Your task to perform on an android device: Open calendar and show me the fourth week of next month Image 0: 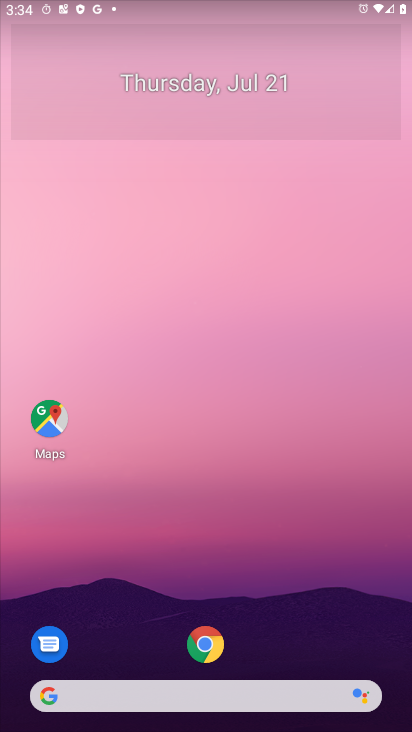
Step 0: press home button
Your task to perform on an android device: Open calendar and show me the fourth week of next month Image 1: 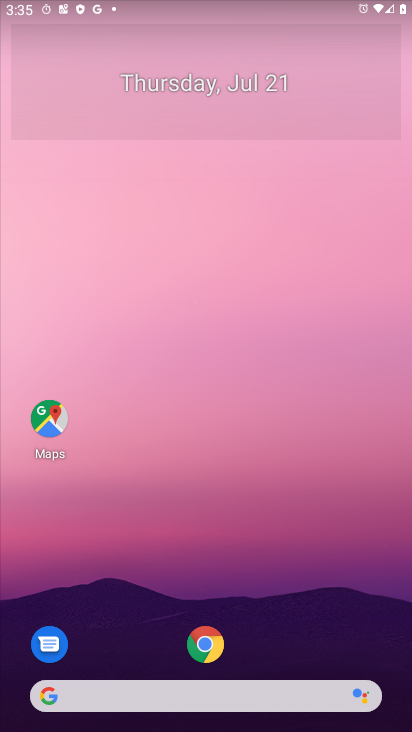
Step 1: press home button
Your task to perform on an android device: Open calendar and show me the fourth week of next month Image 2: 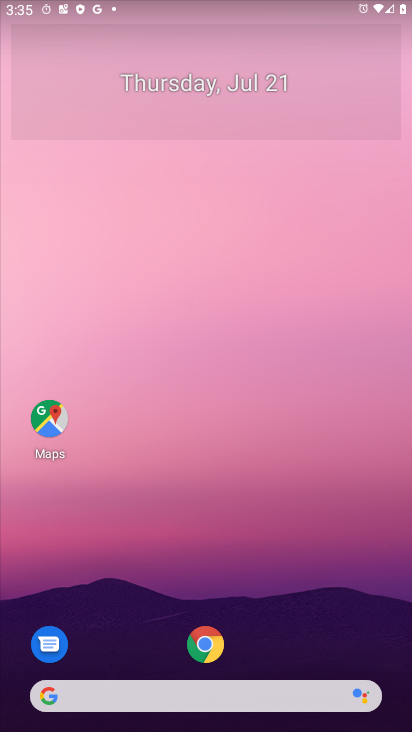
Step 2: drag from (299, 570) to (294, 44)
Your task to perform on an android device: Open calendar and show me the fourth week of next month Image 3: 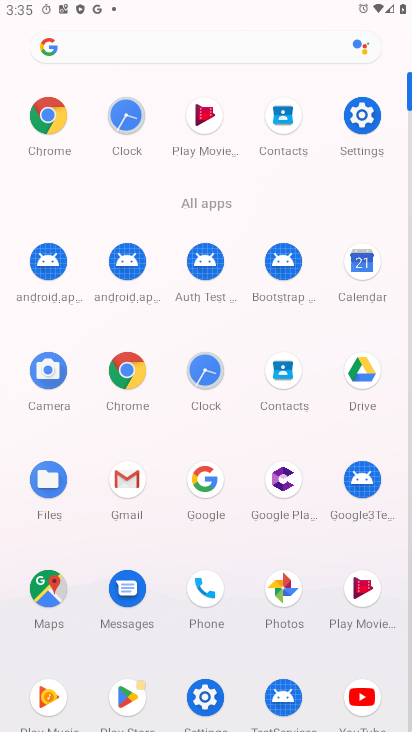
Step 3: click (359, 257)
Your task to perform on an android device: Open calendar and show me the fourth week of next month Image 4: 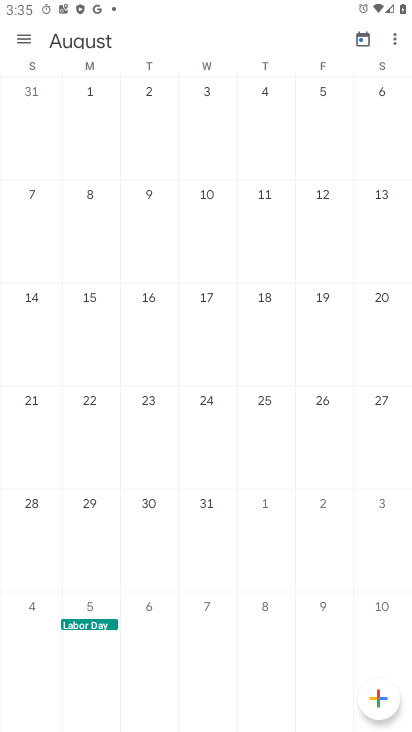
Step 4: task complete